Your task to perform on an android device: change the clock display to analog Image 0: 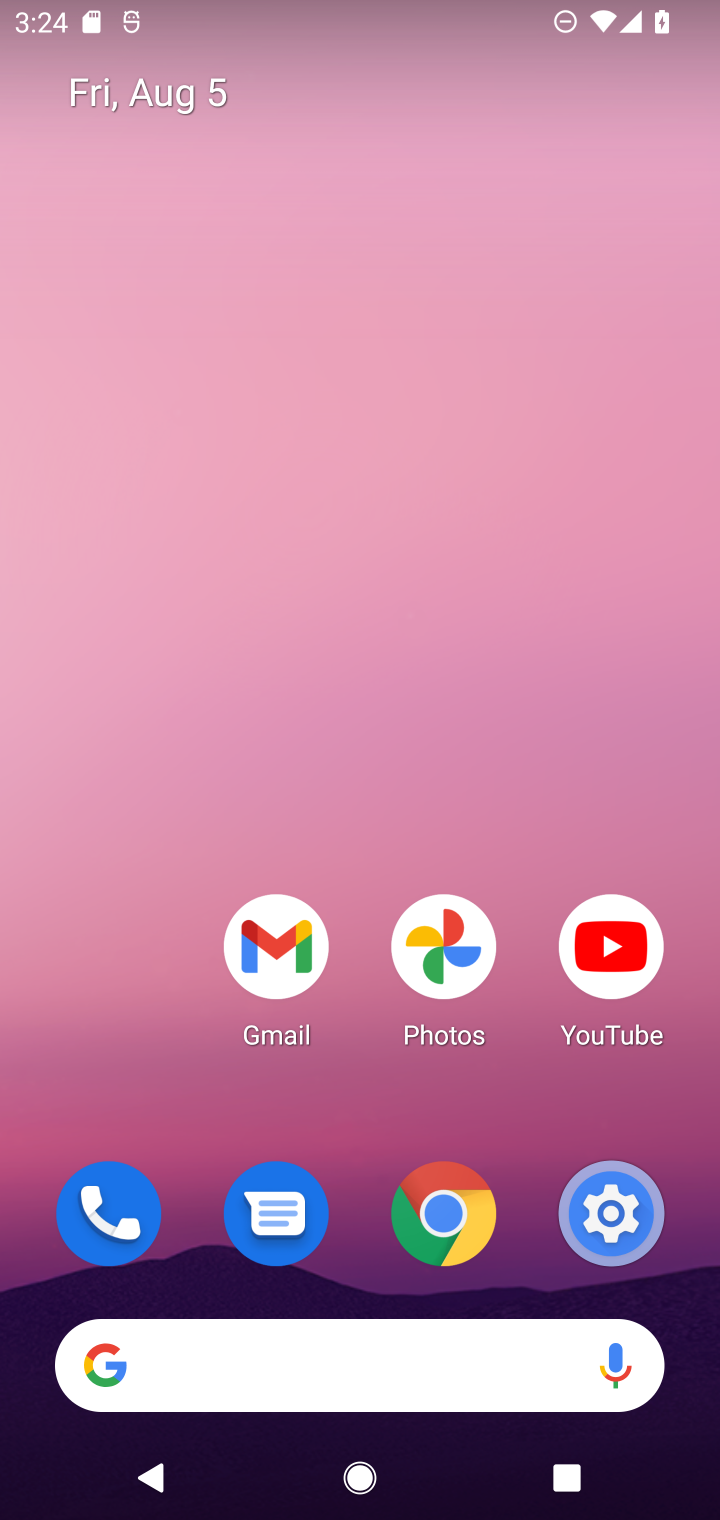
Step 0: drag from (136, 904) to (191, 8)
Your task to perform on an android device: change the clock display to analog Image 1: 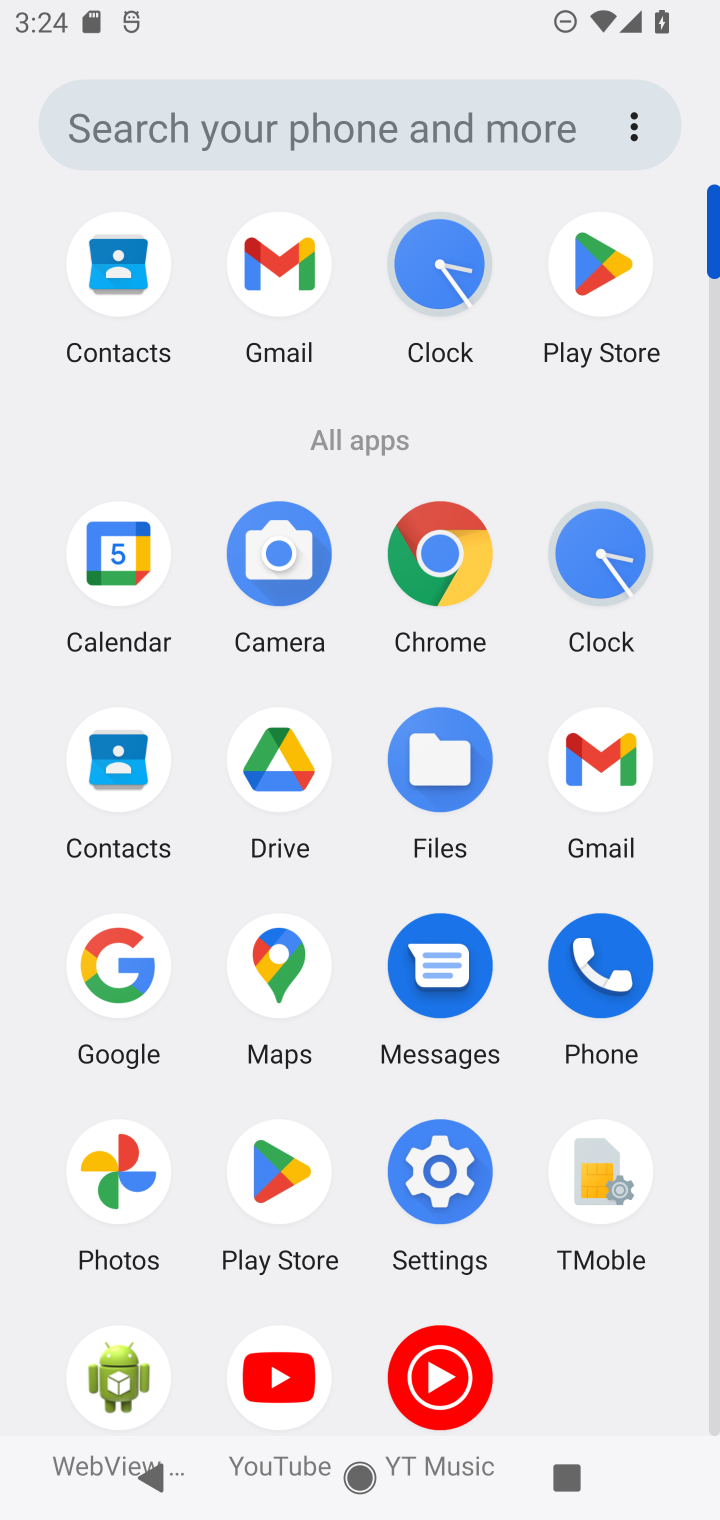
Step 1: click (418, 249)
Your task to perform on an android device: change the clock display to analog Image 2: 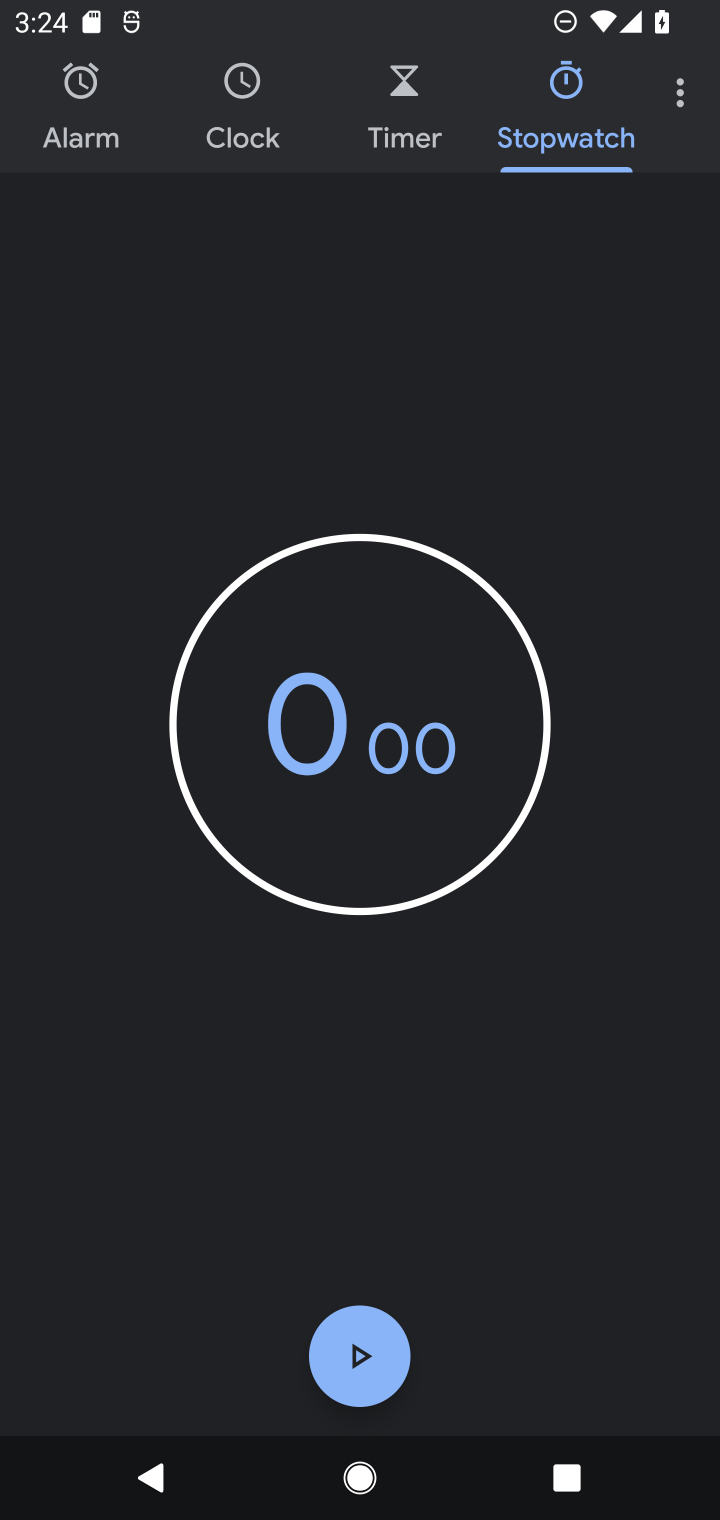
Step 2: click (256, 78)
Your task to perform on an android device: change the clock display to analog Image 3: 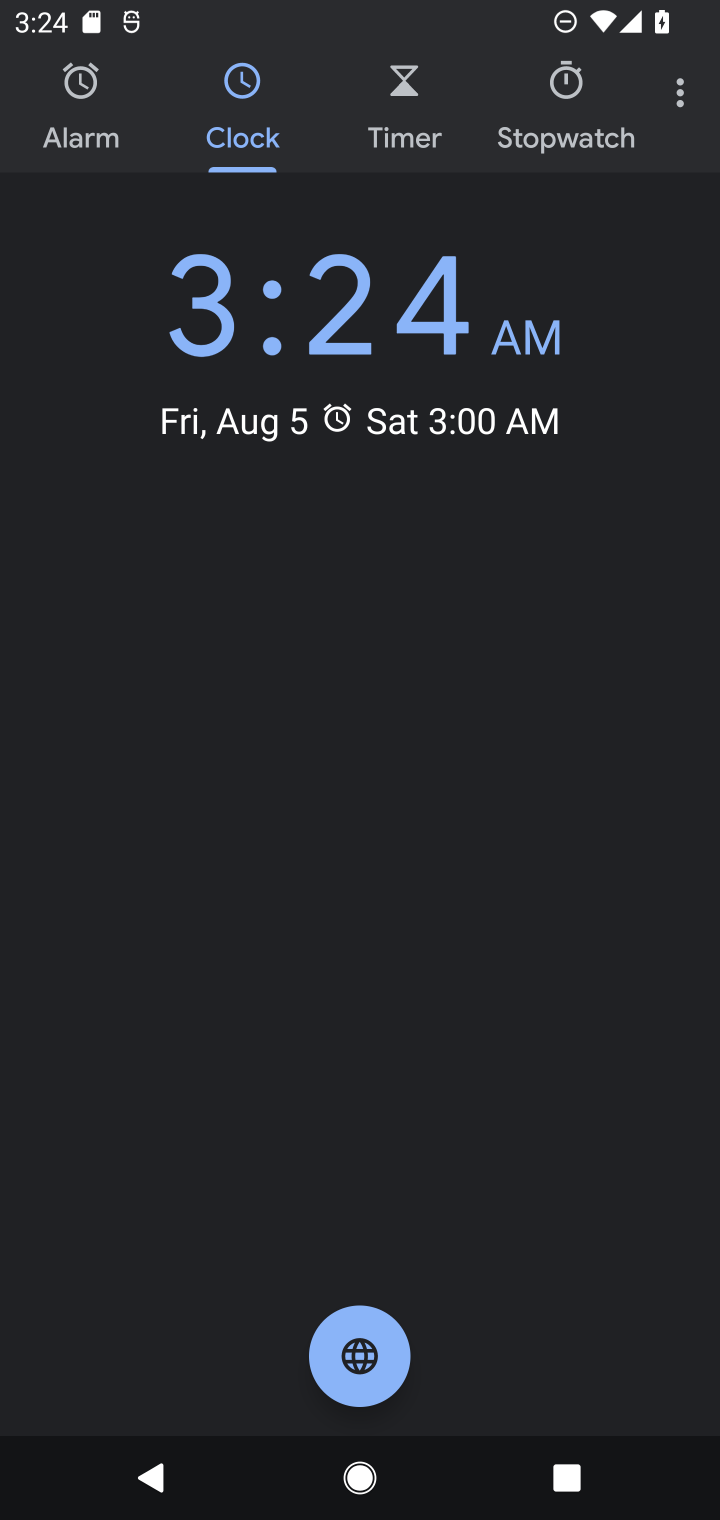
Step 3: click (688, 88)
Your task to perform on an android device: change the clock display to analog Image 4: 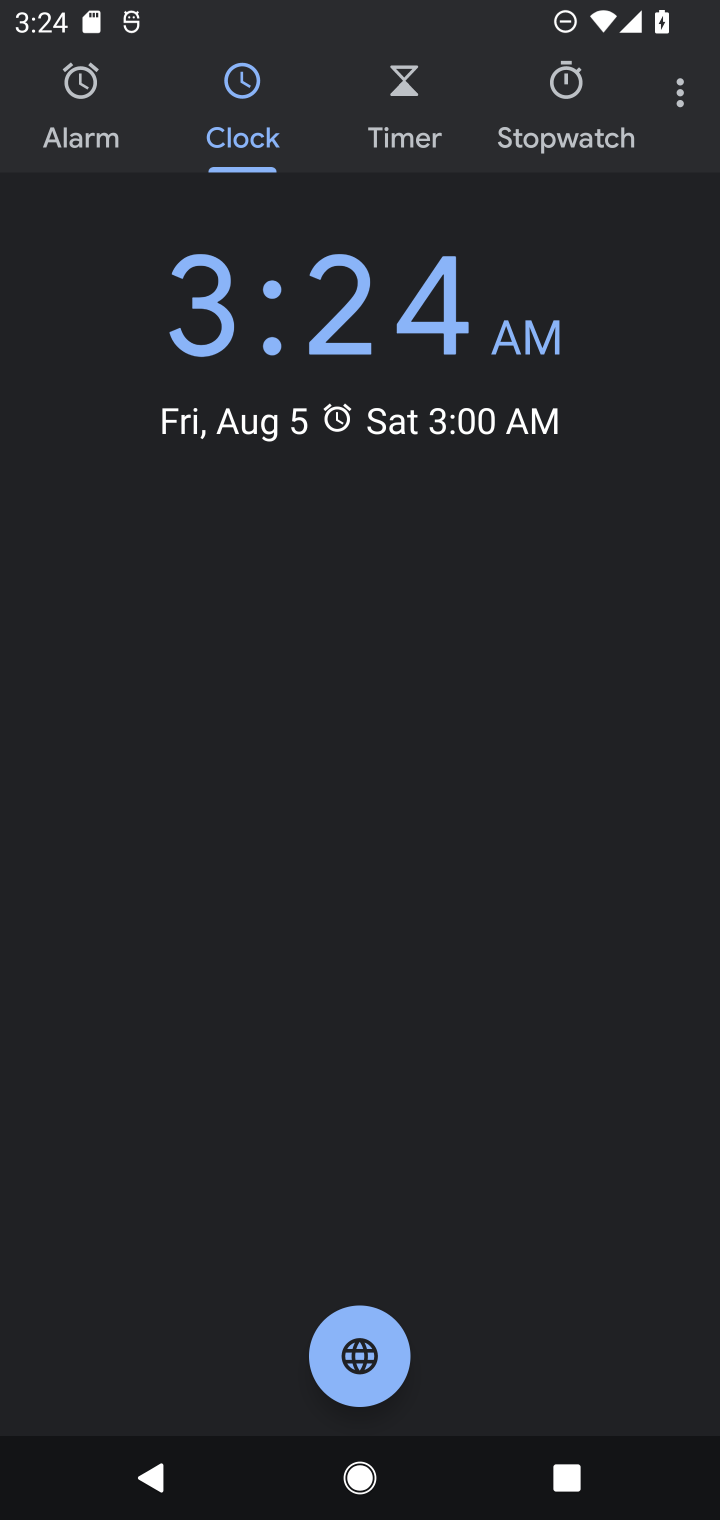
Step 4: click (676, 103)
Your task to perform on an android device: change the clock display to analog Image 5: 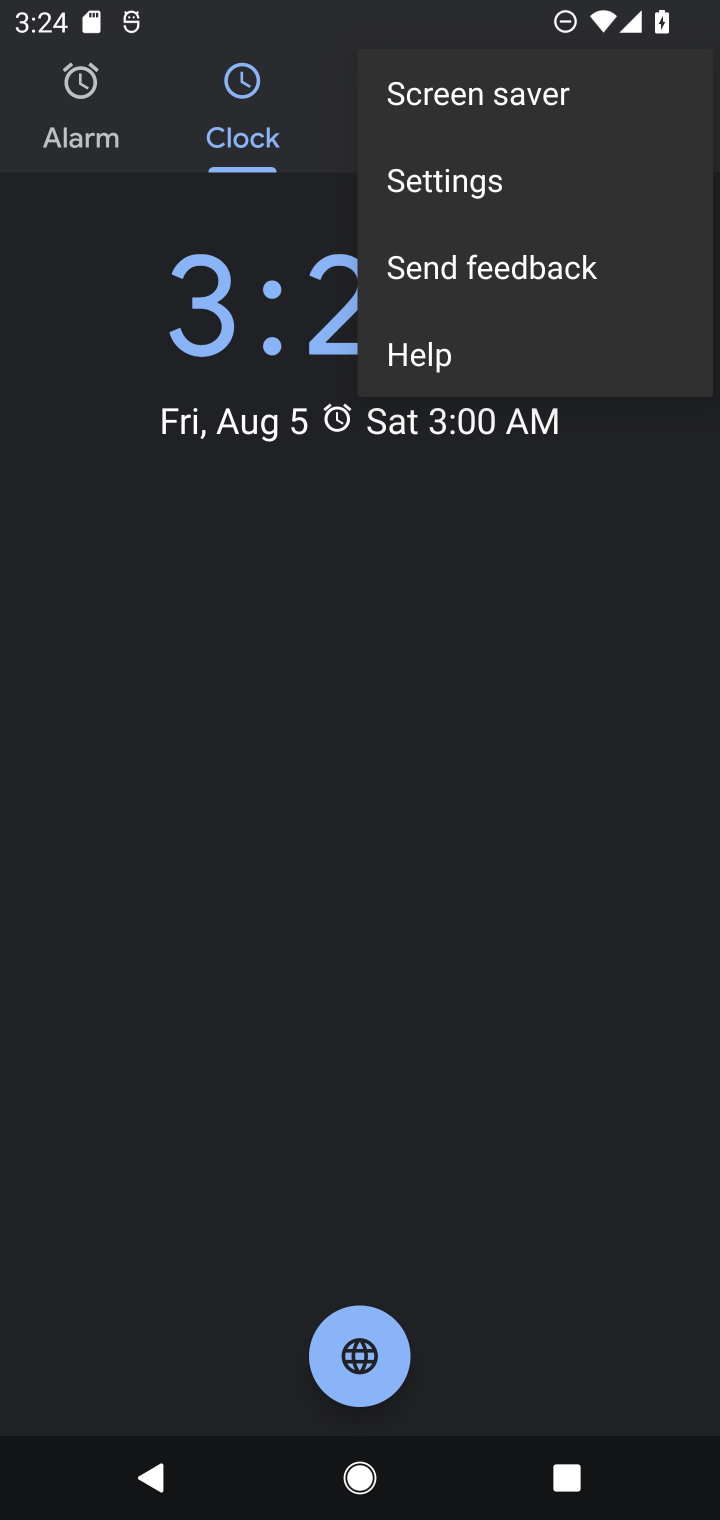
Step 5: click (512, 187)
Your task to perform on an android device: change the clock display to analog Image 6: 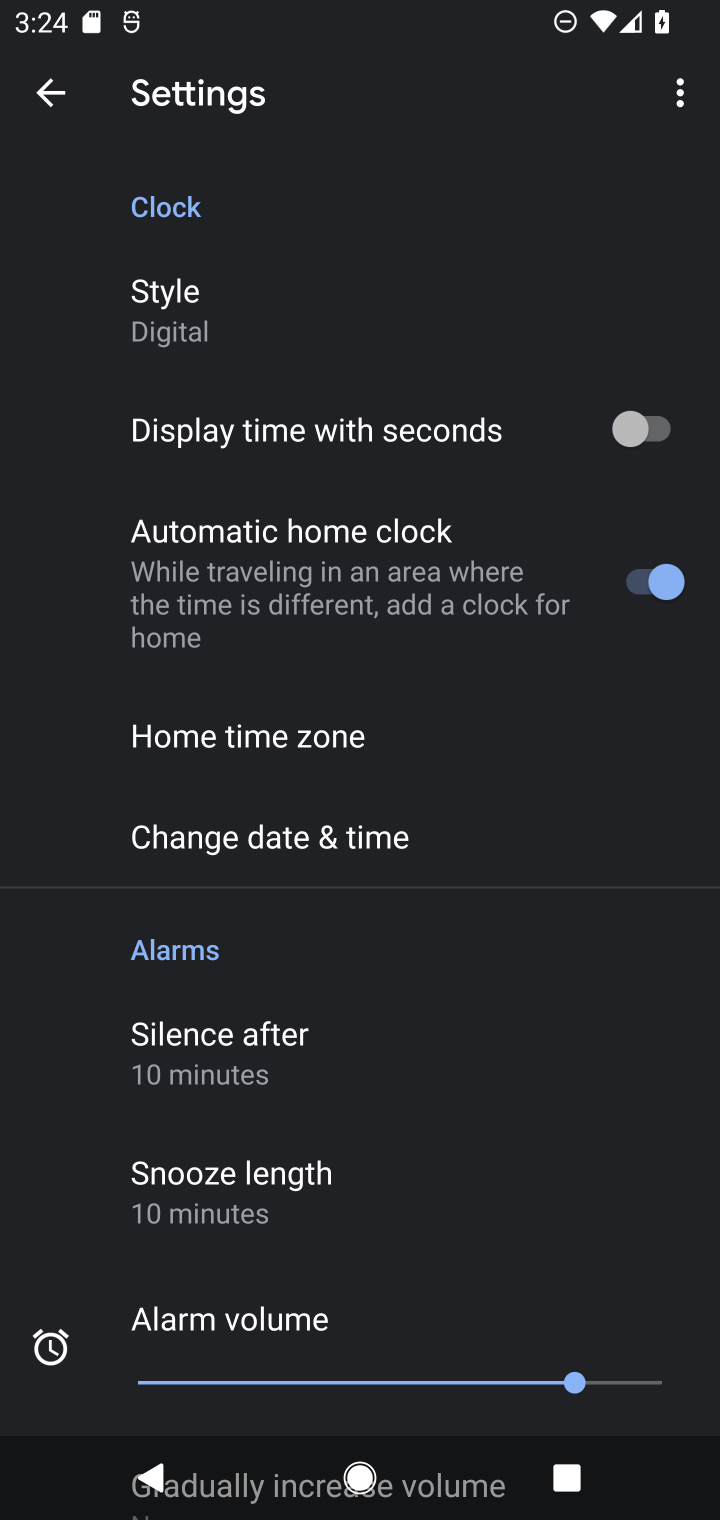
Step 6: click (195, 323)
Your task to perform on an android device: change the clock display to analog Image 7: 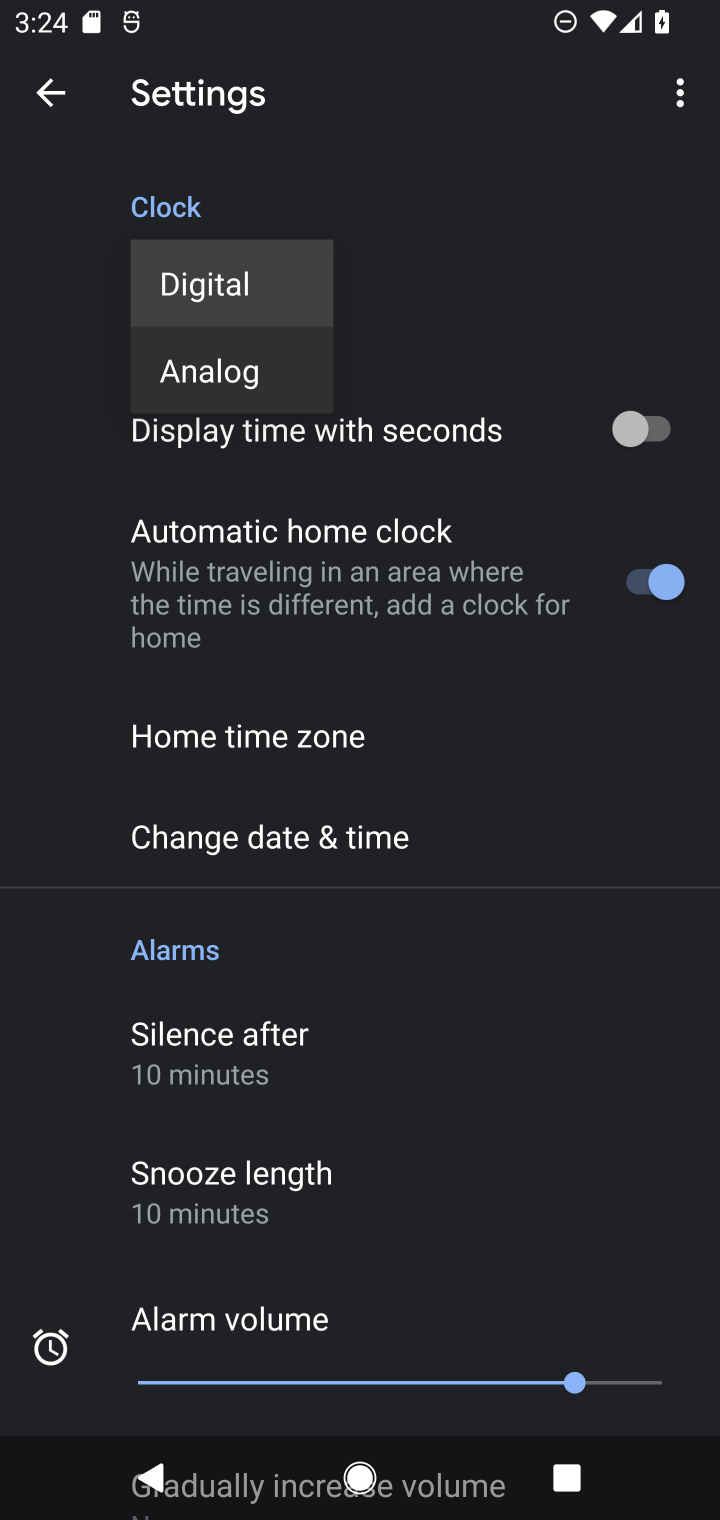
Step 7: click (241, 387)
Your task to perform on an android device: change the clock display to analog Image 8: 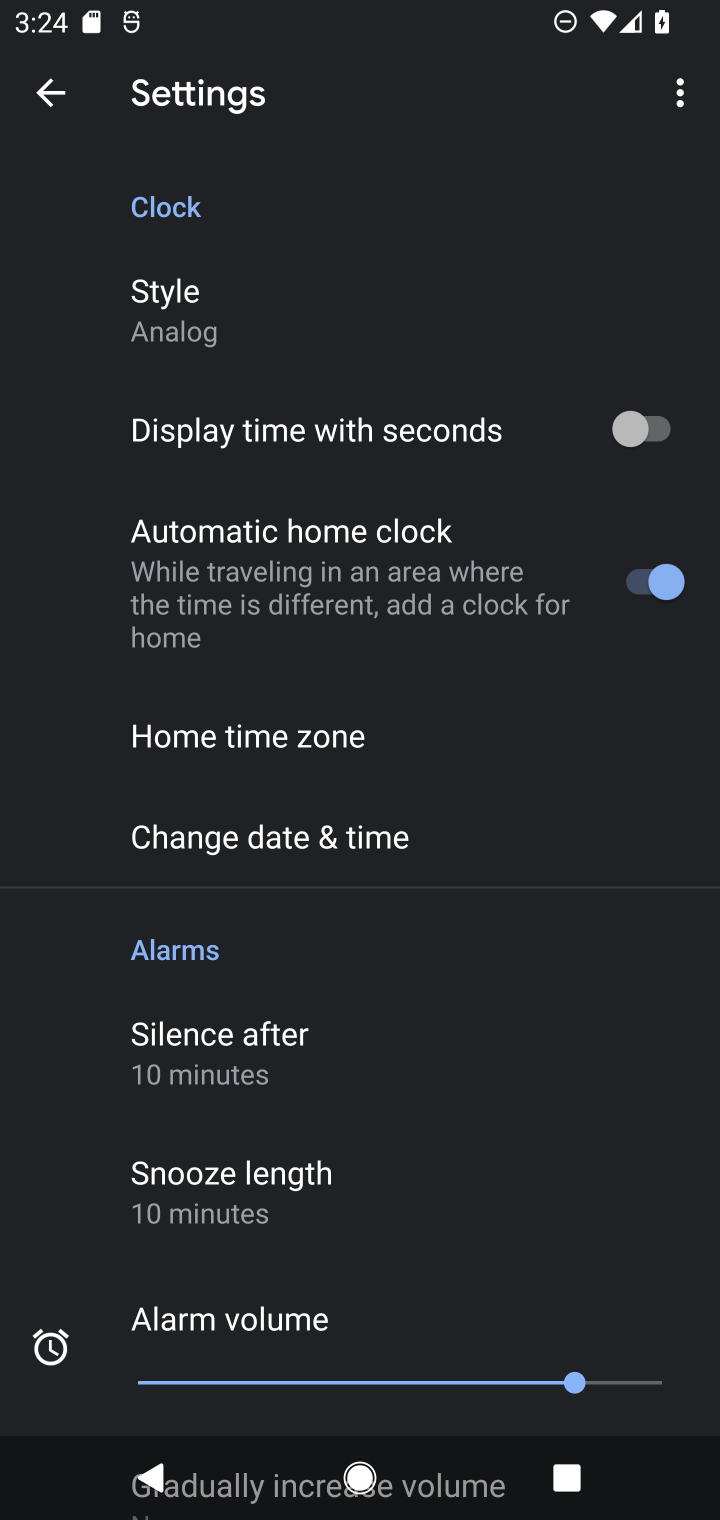
Step 8: click (74, 116)
Your task to perform on an android device: change the clock display to analog Image 9: 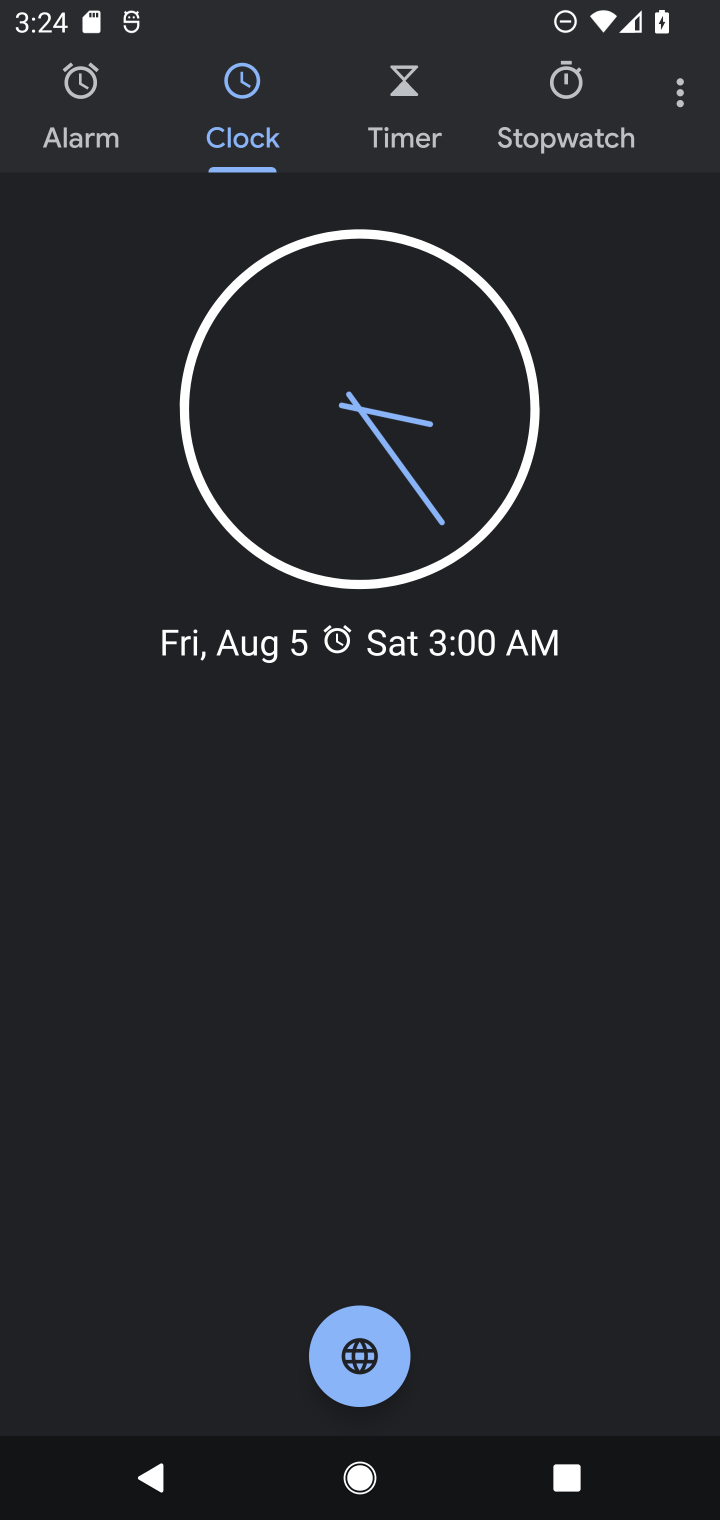
Step 9: task complete